Your task to perform on an android device: set the timer Image 0: 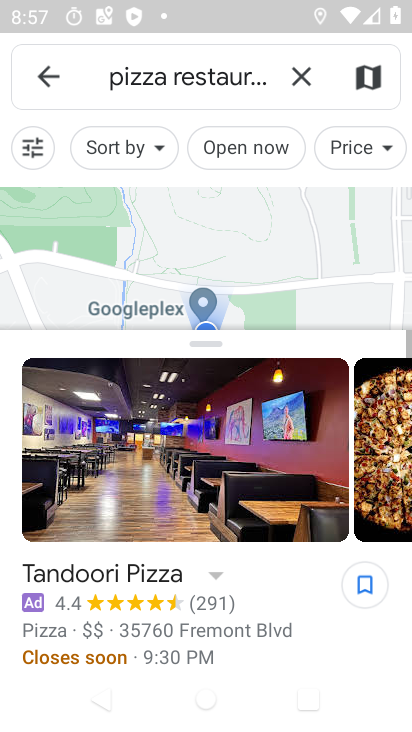
Step 0: press home button
Your task to perform on an android device: set the timer Image 1: 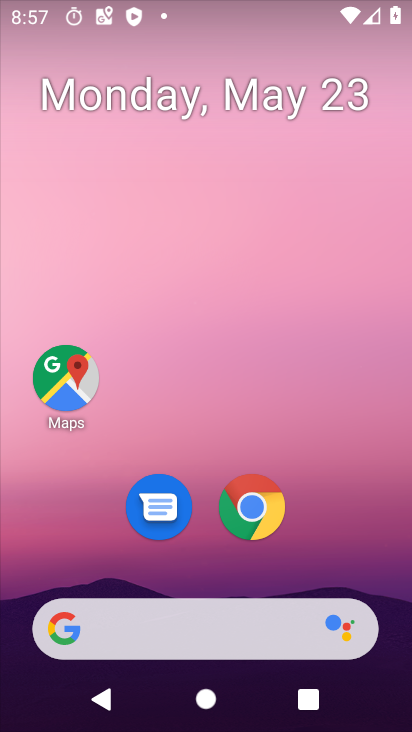
Step 1: drag from (330, 483) to (312, 45)
Your task to perform on an android device: set the timer Image 2: 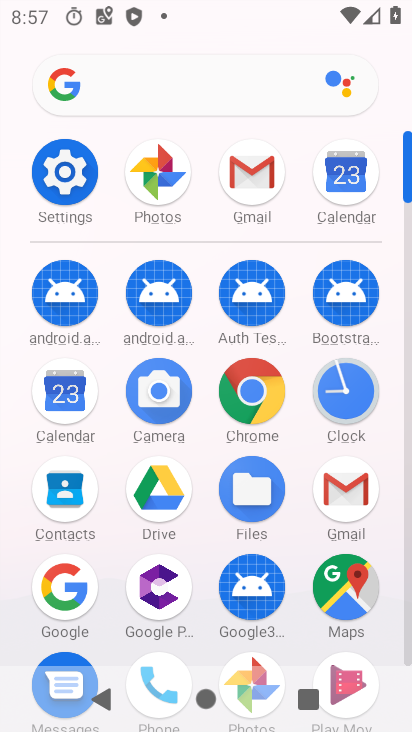
Step 2: click (325, 389)
Your task to perform on an android device: set the timer Image 3: 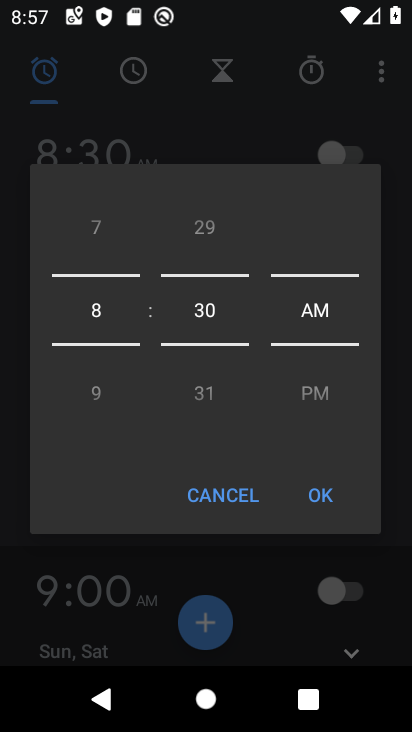
Step 3: click (223, 494)
Your task to perform on an android device: set the timer Image 4: 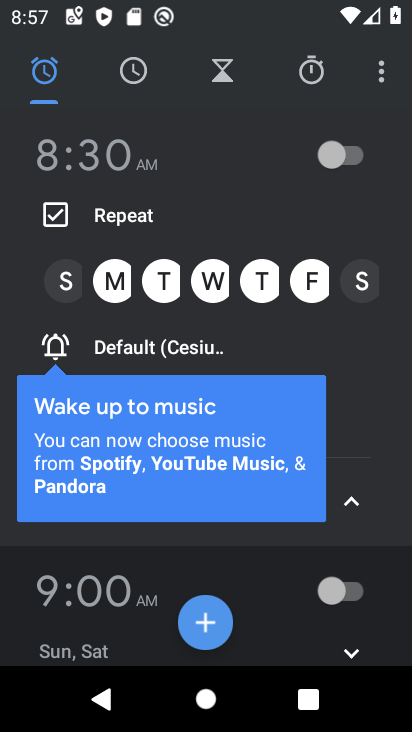
Step 4: click (190, 85)
Your task to perform on an android device: set the timer Image 5: 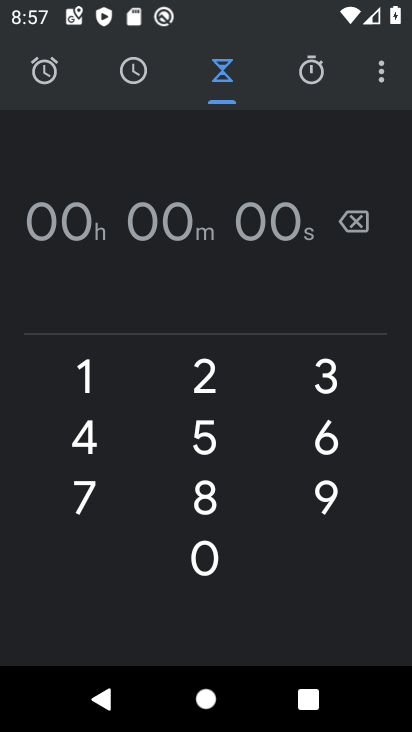
Step 5: click (210, 85)
Your task to perform on an android device: set the timer Image 6: 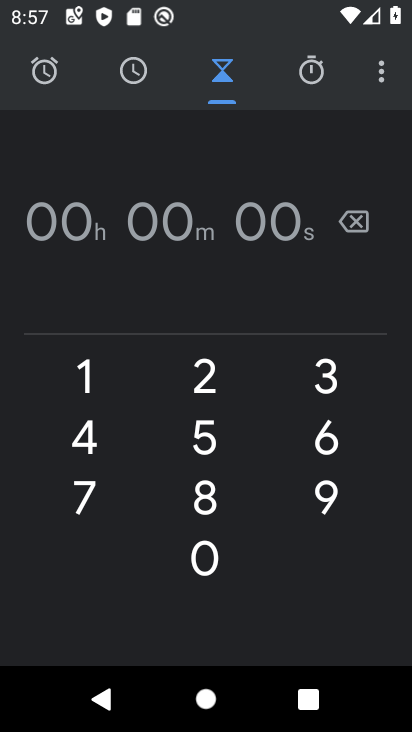
Step 6: click (189, 387)
Your task to perform on an android device: set the timer Image 7: 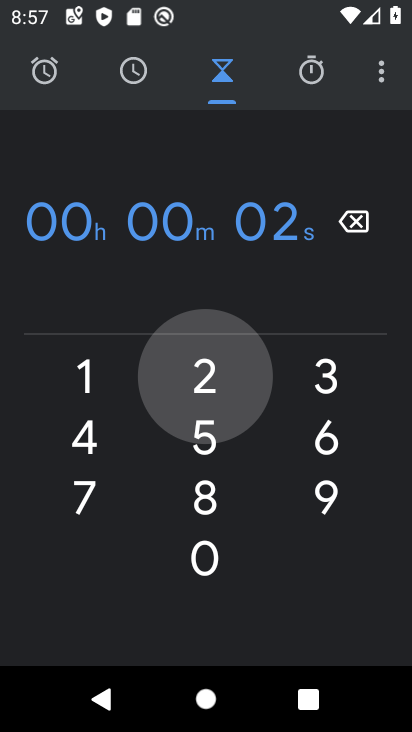
Step 7: click (196, 422)
Your task to perform on an android device: set the timer Image 8: 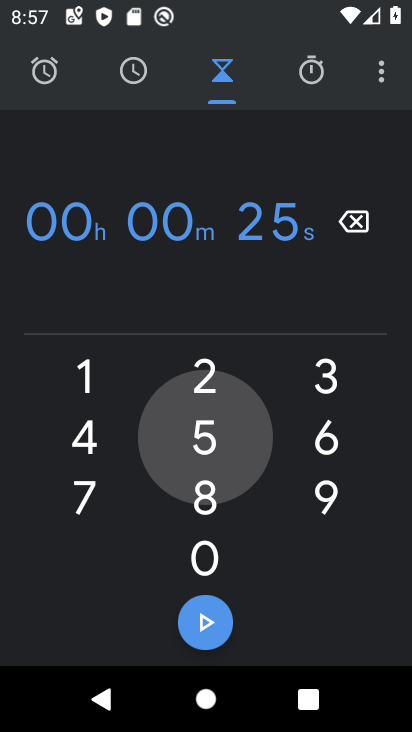
Step 8: click (208, 381)
Your task to perform on an android device: set the timer Image 9: 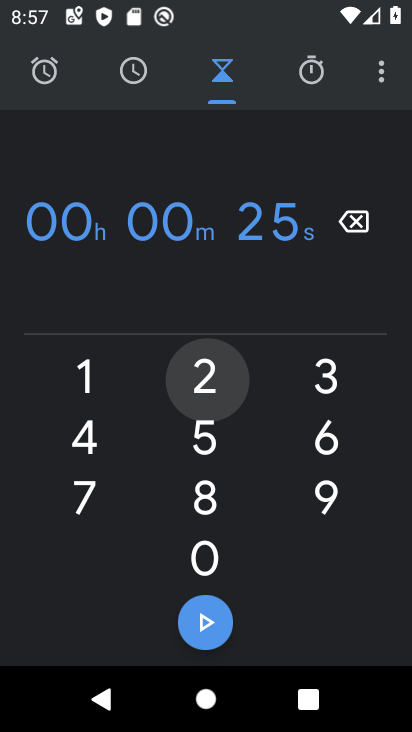
Step 9: click (209, 448)
Your task to perform on an android device: set the timer Image 10: 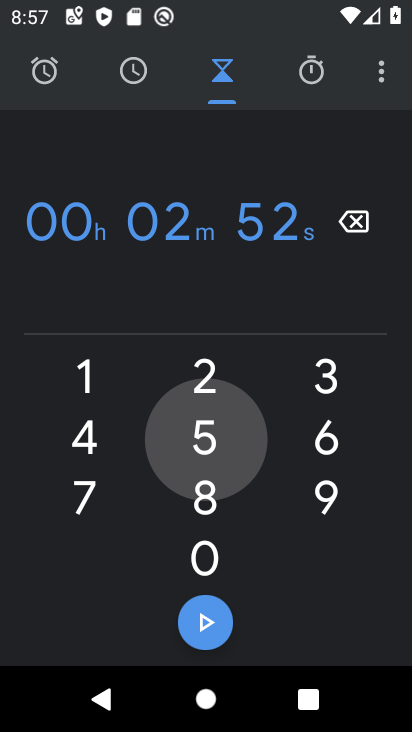
Step 10: click (213, 380)
Your task to perform on an android device: set the timer Image 11: 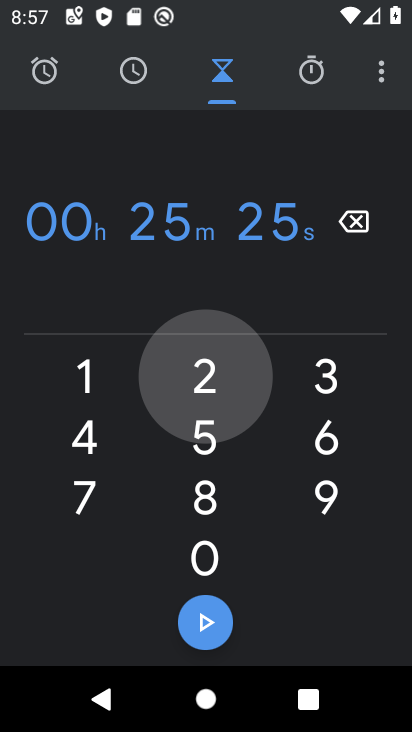
Step 11: click (204, 455)
Your task to perform on an android device: set the timer Image 12: 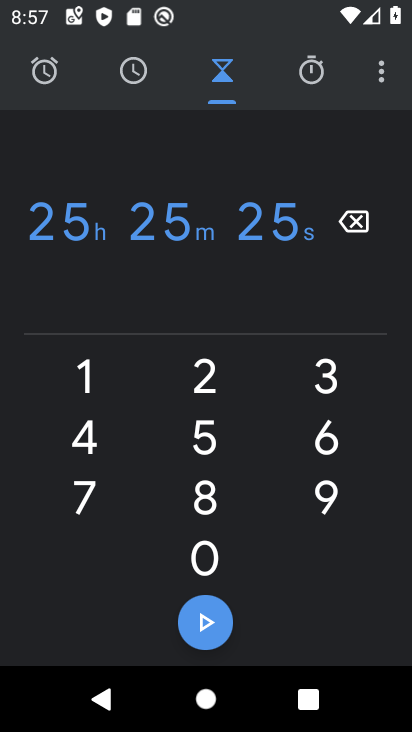
Step 12: click (215, 639)
Your task to perform on an android device: set the timer Image 13: 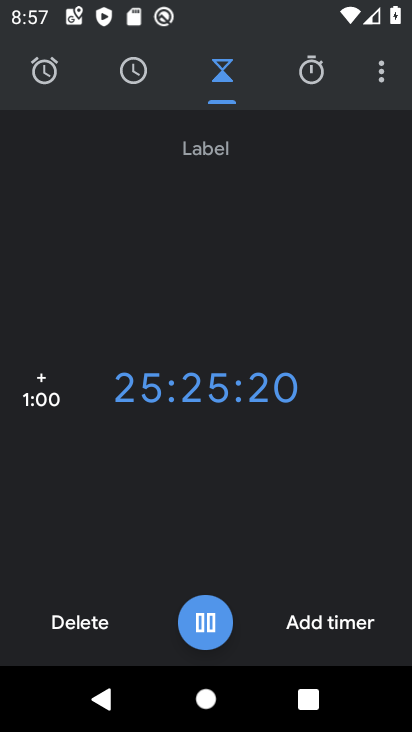
Step 13: task complete